Your task to perform on an android device: Play the last video I watched on Youtube Image 0: 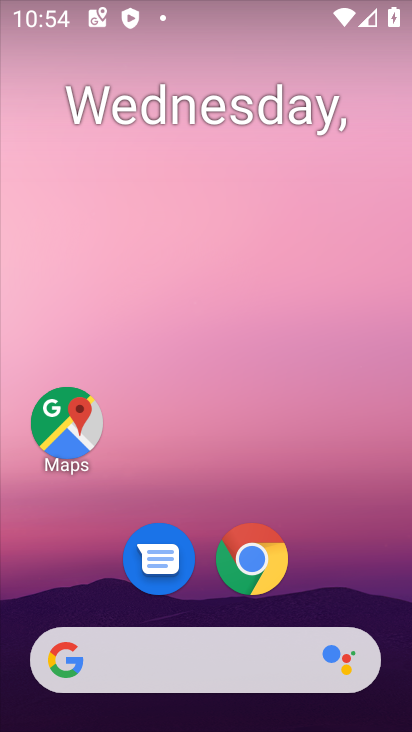
Step 0: drag from (395, 652) to (304, 96)
Your task to perform on an android device: Play the last video I watched on Youtube Image 1: 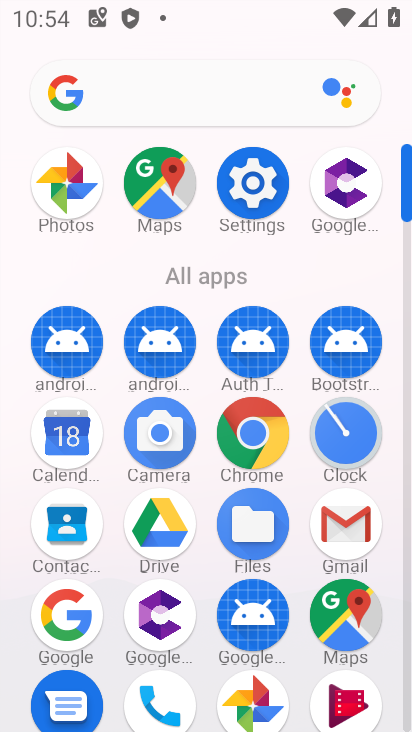
Step 1: click (409, 678)
Your task to perform on an android device: Play the last video I watched on Youtube Image 2: 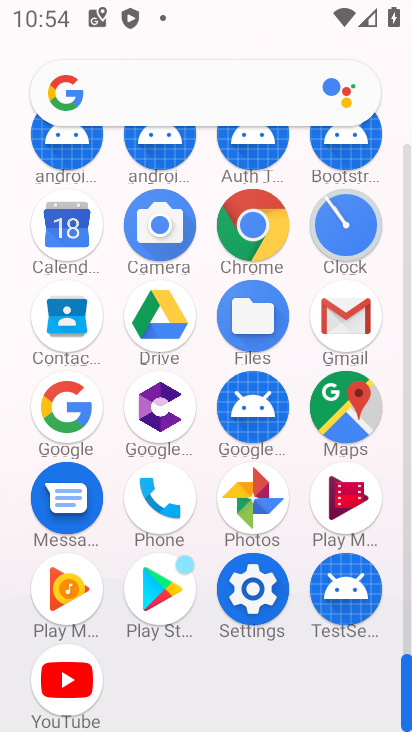
Step 2: click (63, 663)
Your task to perform on an android device: Play the last video I watched on Youtube Image 3: 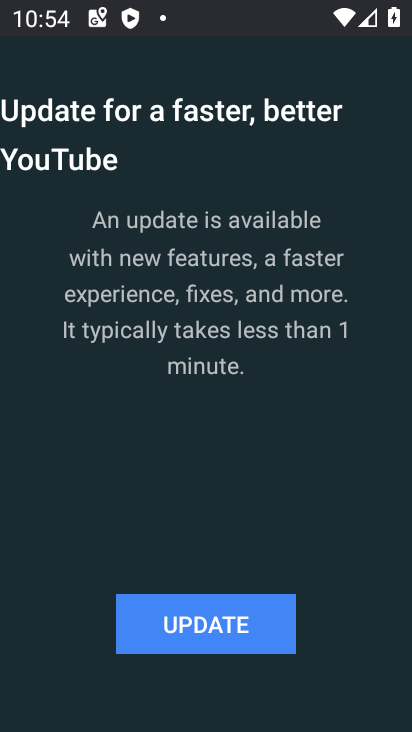
Step 3: click (176, 643)
Your task to perform on an android device: Play the last video I watched on Youtube Image 4: 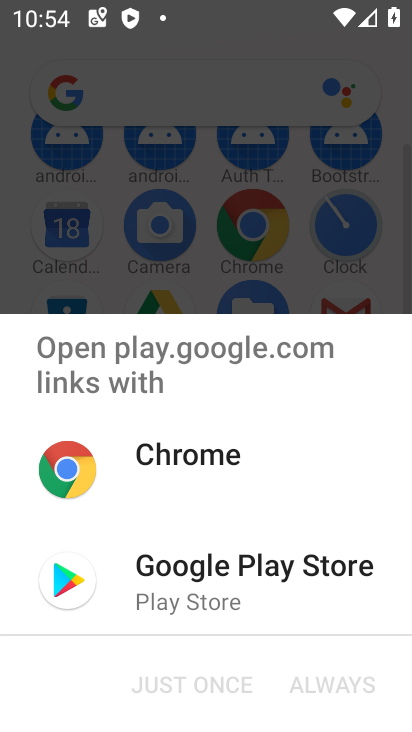
Step 4: click (200, 618)
Your task to perform on an android device: Play the last video I watched on Youtube Image 5: 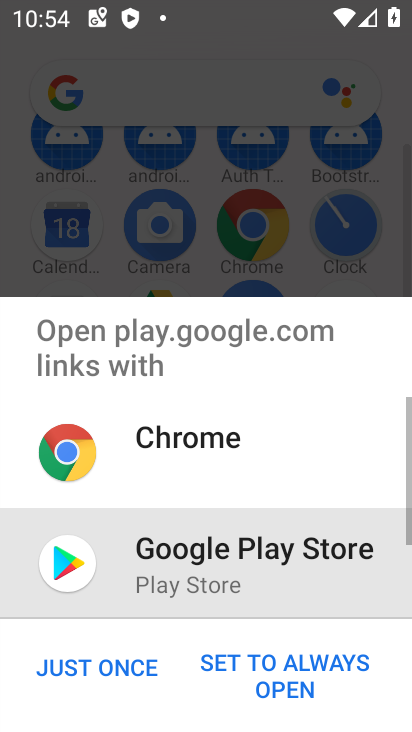
Step 5: click (130, 670)
Your task to perform on an android device: Play the last video I watched on Youtube Image 6: 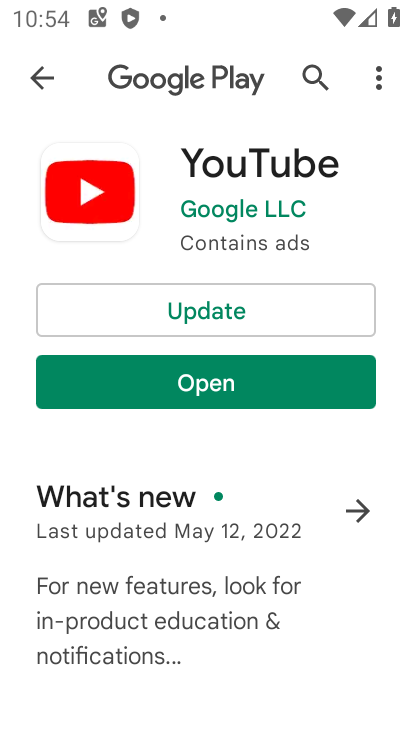
Step 6: click (303, 296)
Your task to perform on an android device: Play the last video I watched on Youtube Image 7: 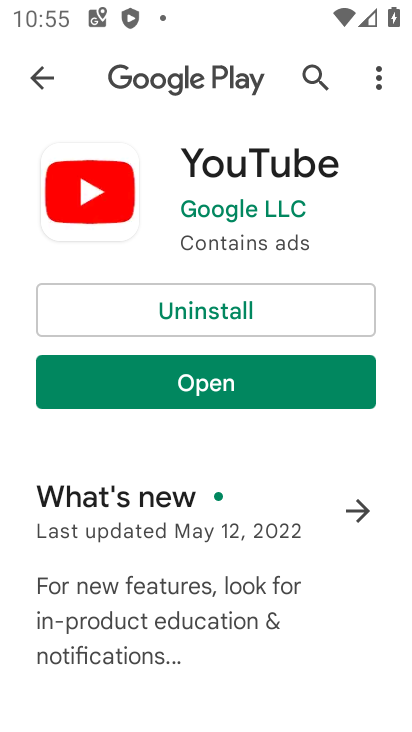
Step 7: click (314, 391)
Your task to perform on an android device: Play the last video I watched on Youtube Image 8: 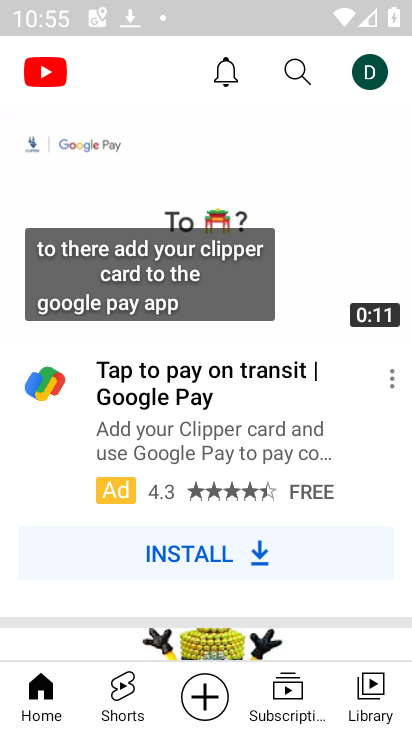
Step 8: click (367, 692)
Your task to perform on an android device: Play the last video I watched on Youtube Image 9: 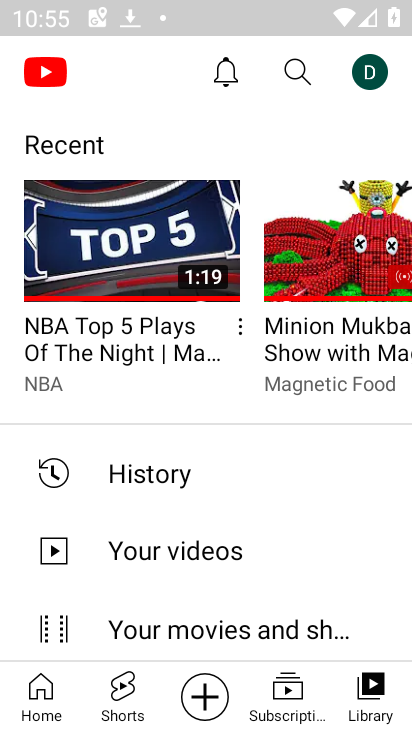
Step 9: click (185, 242)
Your task to perform on an android device: Play the last video I watched on Youtube Image 10: 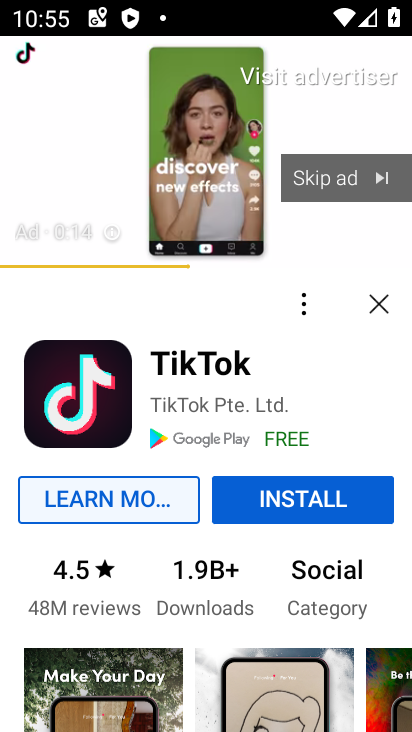
Step 10: task complete